Your task to perform on an android device: Go to ESPN.com Image 0: 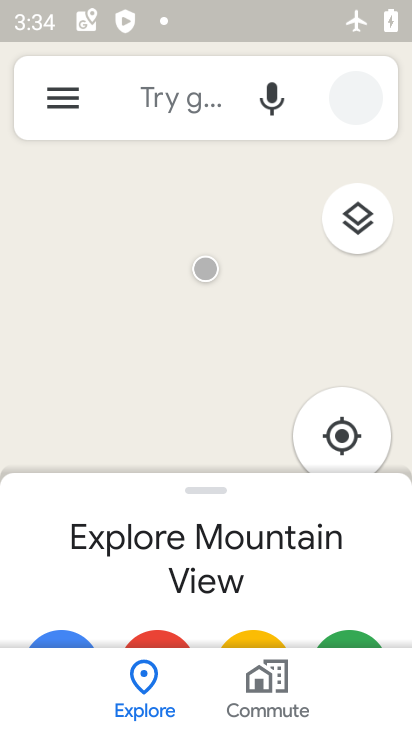
Step 0: press back button
Your task to perform on an android device: Go to ESPN.com Image 1: 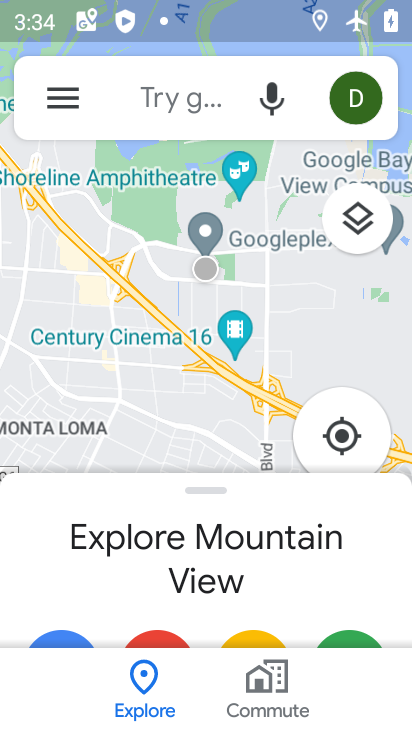
Step 1: press back button
Your task to perform on an android device: Go to ESPN.com Image 2: 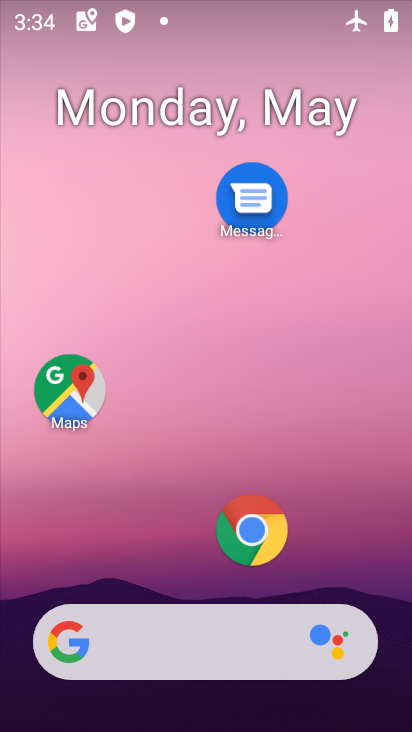
Step 2: click (272, 529)
Your task to perform on an android device: Go to ESPN.com Image 3: 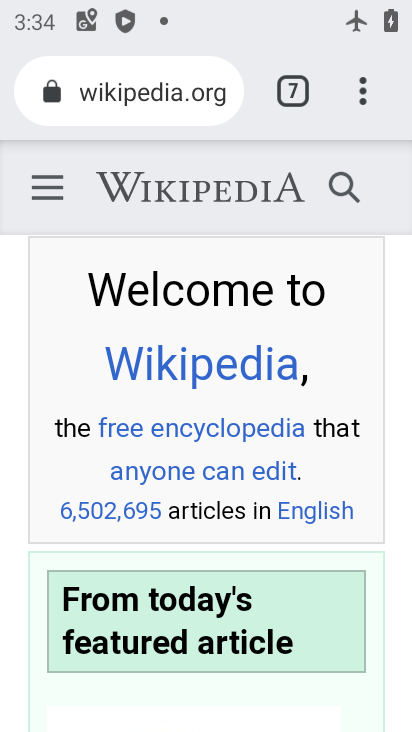
Step 3: click (299, 80)
Your task to perform on an android device: Go to ESPN.com Image 4: 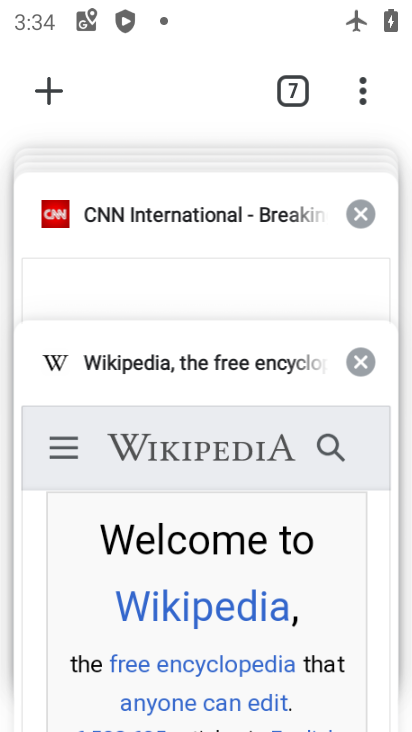
Step 4: drag from (126, 243) to (135, 601)
Your task to perform on an android device: Go to ESPN.com Image 5: 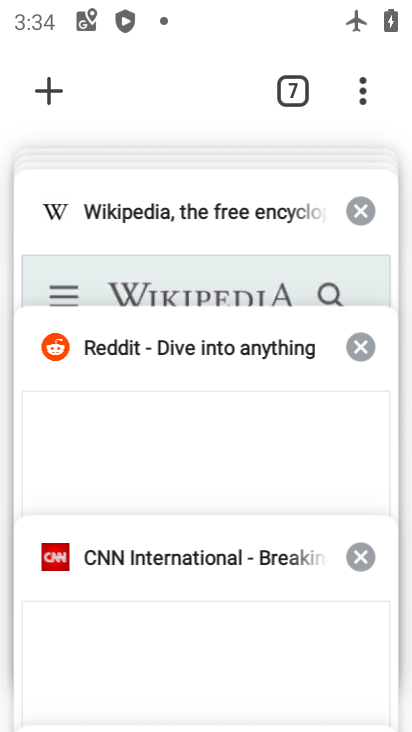
Step 5: drag from (123, 230) to (176, 645)
Your task to perform on an android device: Go to ESPN.com Image 6: 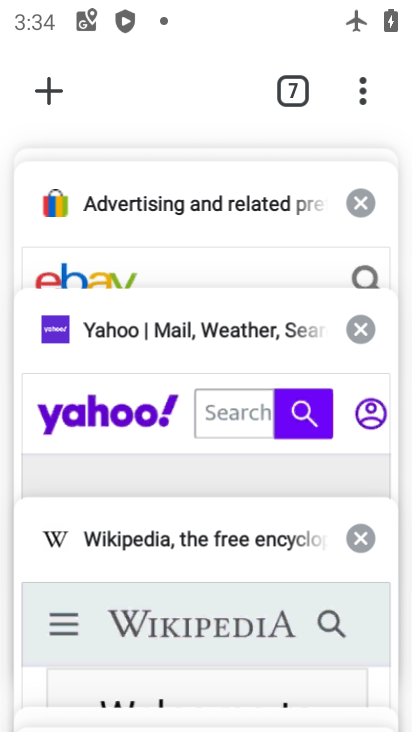
Step 6: drag from (138, 190) to (178, 671)
Your task to perform on an android device: Go to ESPN.com Image 7: 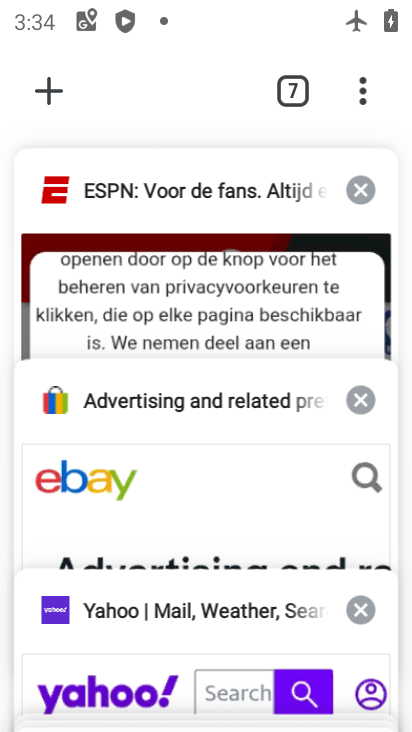
Step 7: click (86, 257)
Your task to perform on an android device: Go to ESPN.com Image 8: 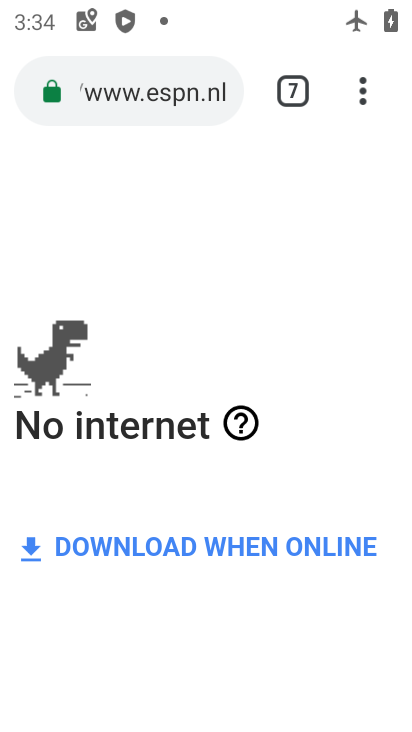
Step 8: task complete